Your task to perform on an android device: turn notification dots on Image 0: 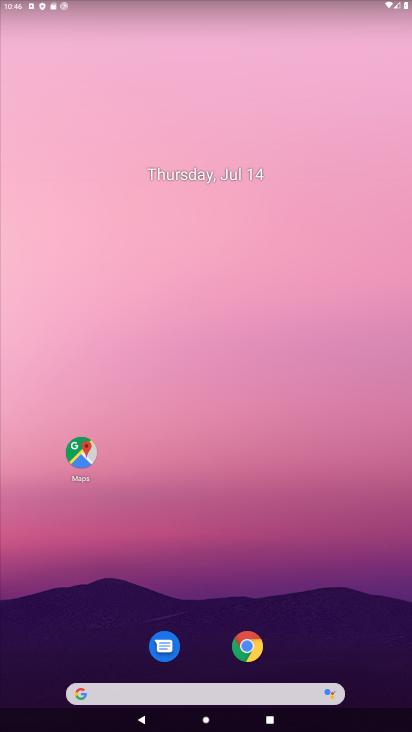
Step 0: drag from (227, 614) to (227, 244)
Your task to perform on an android device: turn notification dots on Image 1: 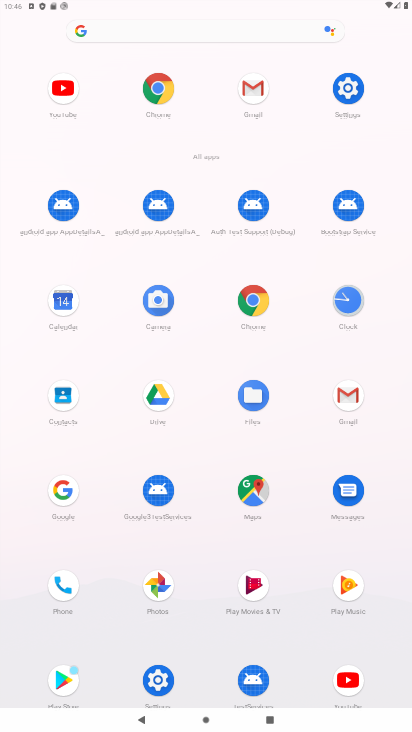
Step 1: click (344, 105)
Your task to perform on an android device: turn notification dots on Image 2: 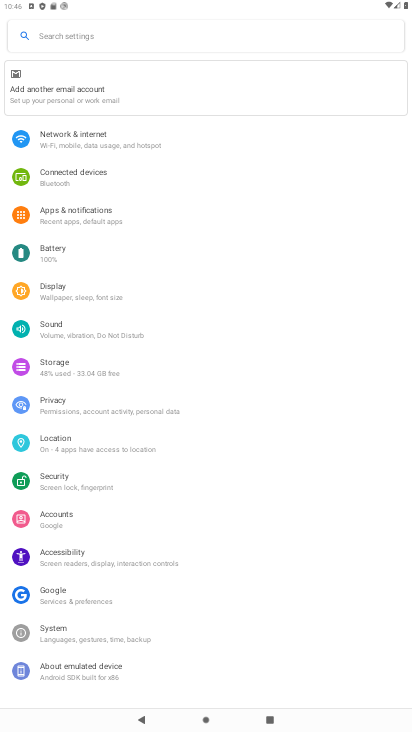
Step 2: click (96, 224)
Your task to perform on an android device: turn notification dots on Image 3: 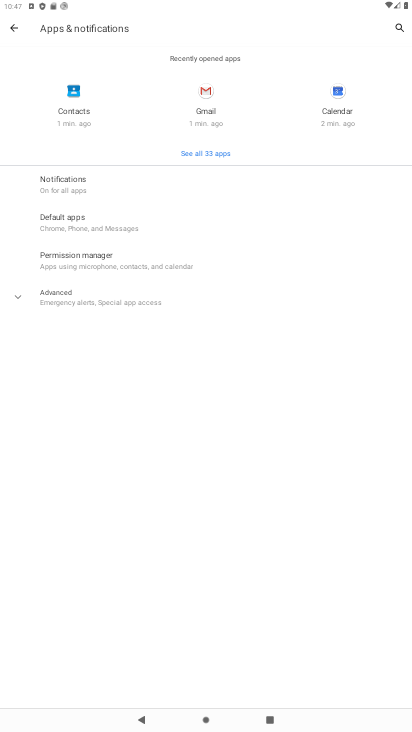
Step 3: click (56, 192)
Your task to perform on an android device: turn notification dots on Image 4: 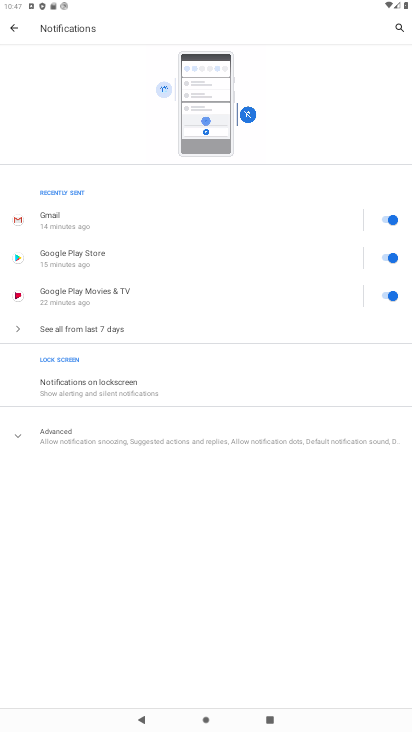
Step 4: click (69, 428)
Your task to perform on an android device: turn notification dots on Image 5: 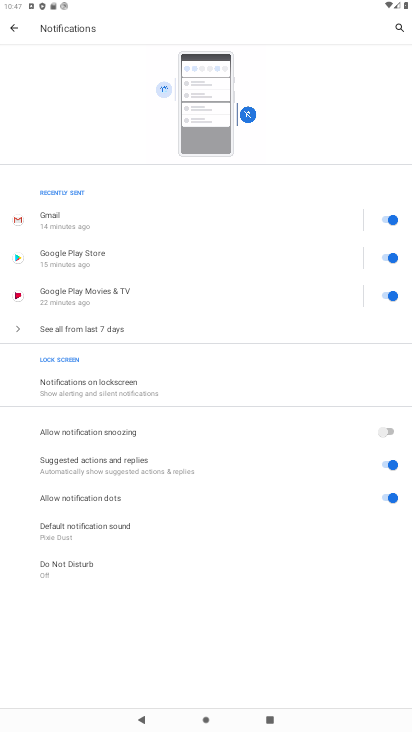
Step 5: task complete